Your task to perform on an android device: install app "Viber Messenger" Image 0: 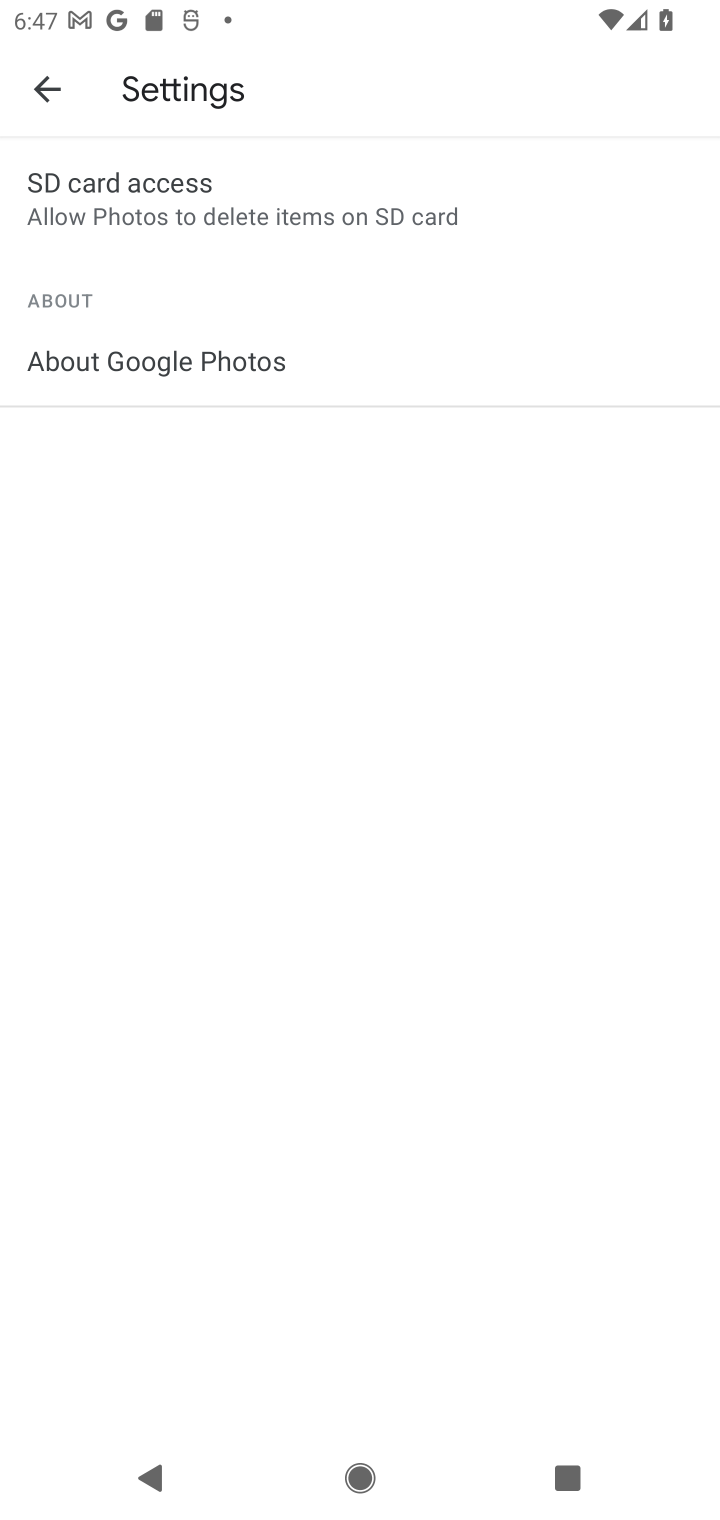
Step 0: press home button
Your task to perform on an android device: install app "Viber Messenger" Image 1: 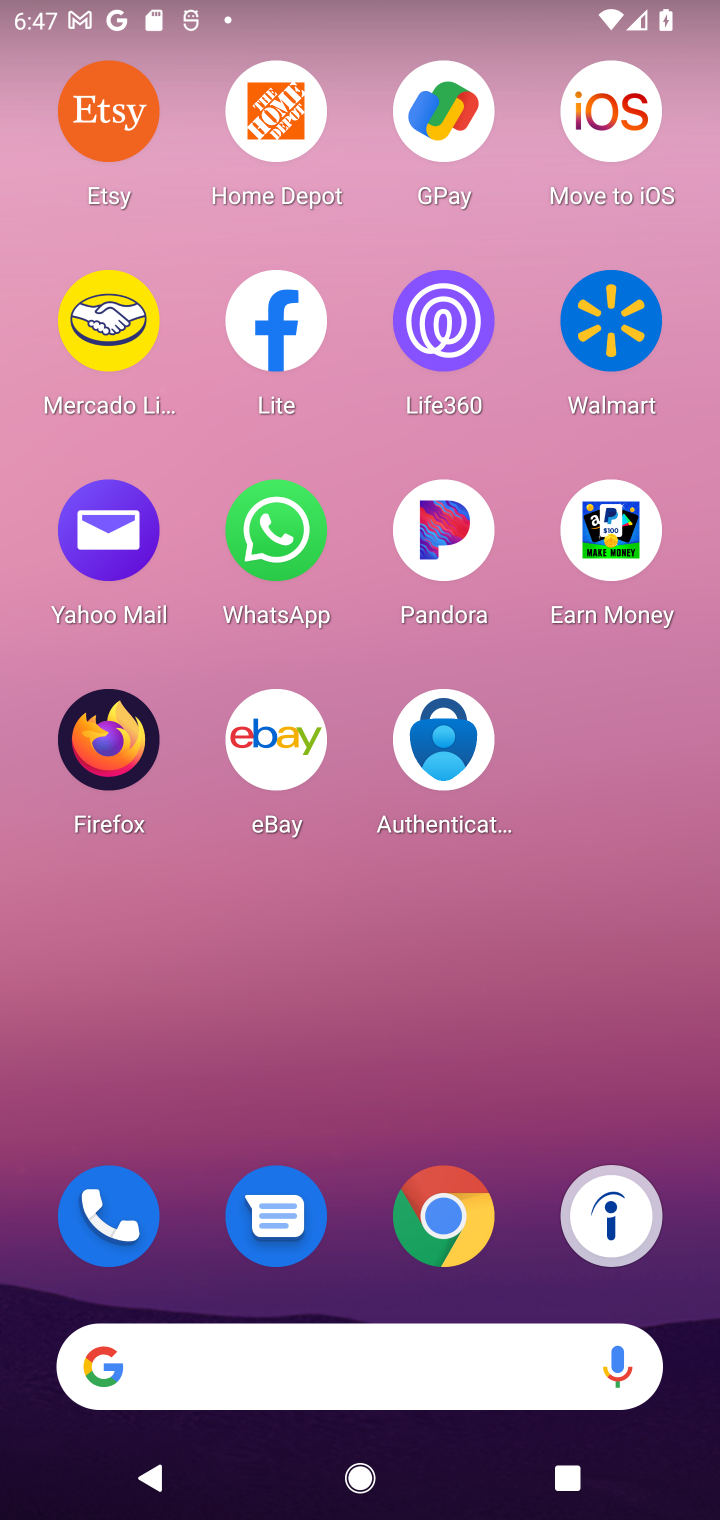
Step 1: drag from (530, 1282) to (518, 360)
Your task to perform on an android device: install app "Viber Messenger" Image 2: 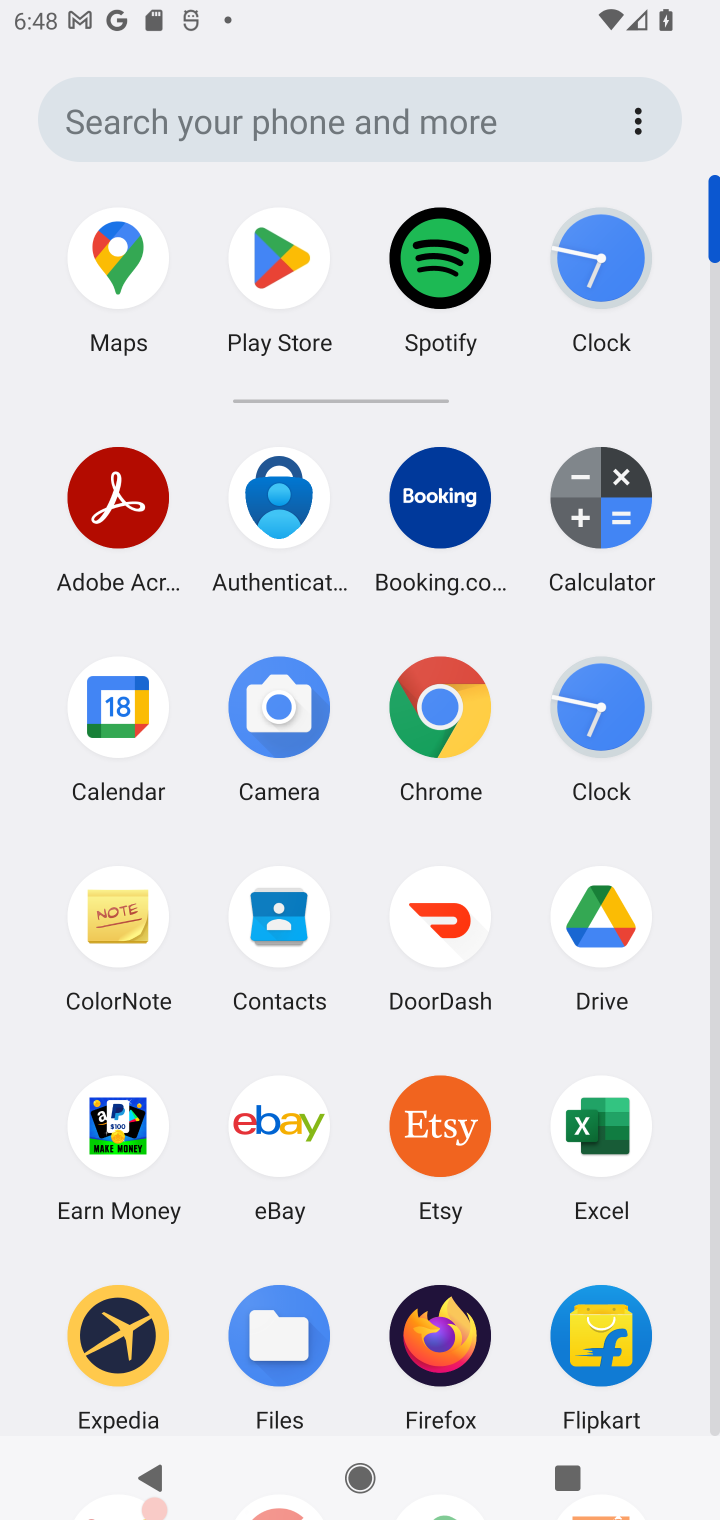
Step 2: drag from (529, 1235) to (525, 604)
Your task to perform on an android device: install app "Viber Messenger" Image 3: 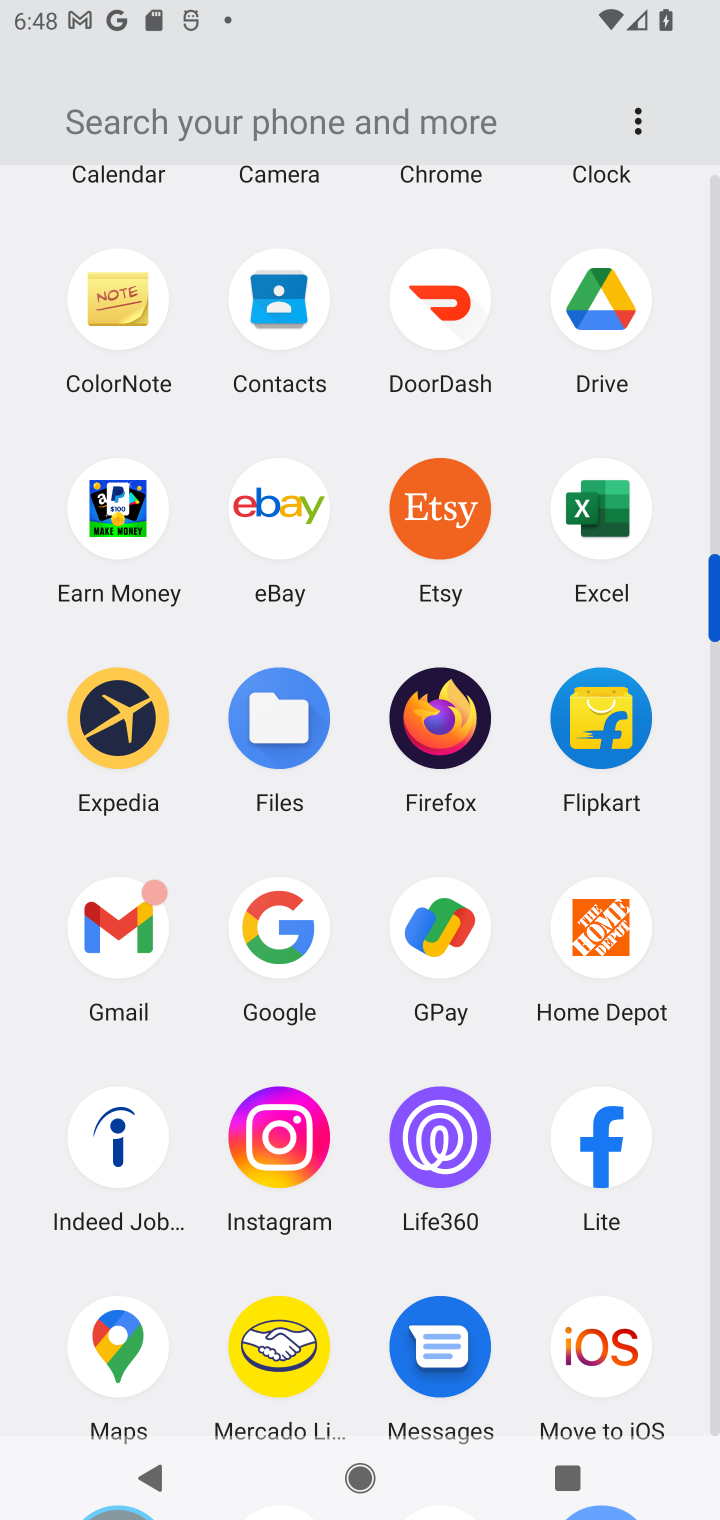
Step 3: drag from (517, 1281) to (507, 591)
Your task to perform on an android device: install app "Viber Messenger" Image 4: 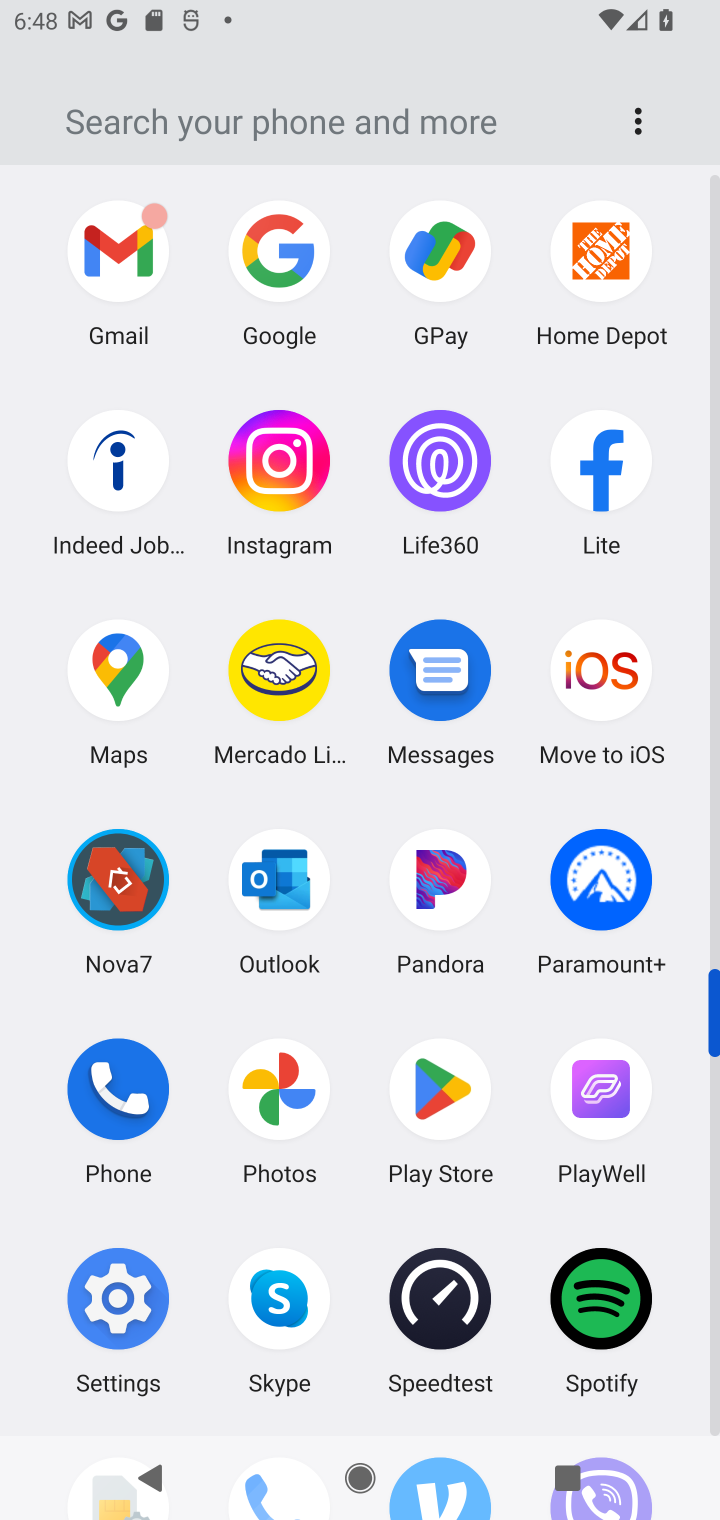
Step 4: click (442, 1098)
Your task to perform on an android device: install app "Viber Messenger" Image 5: 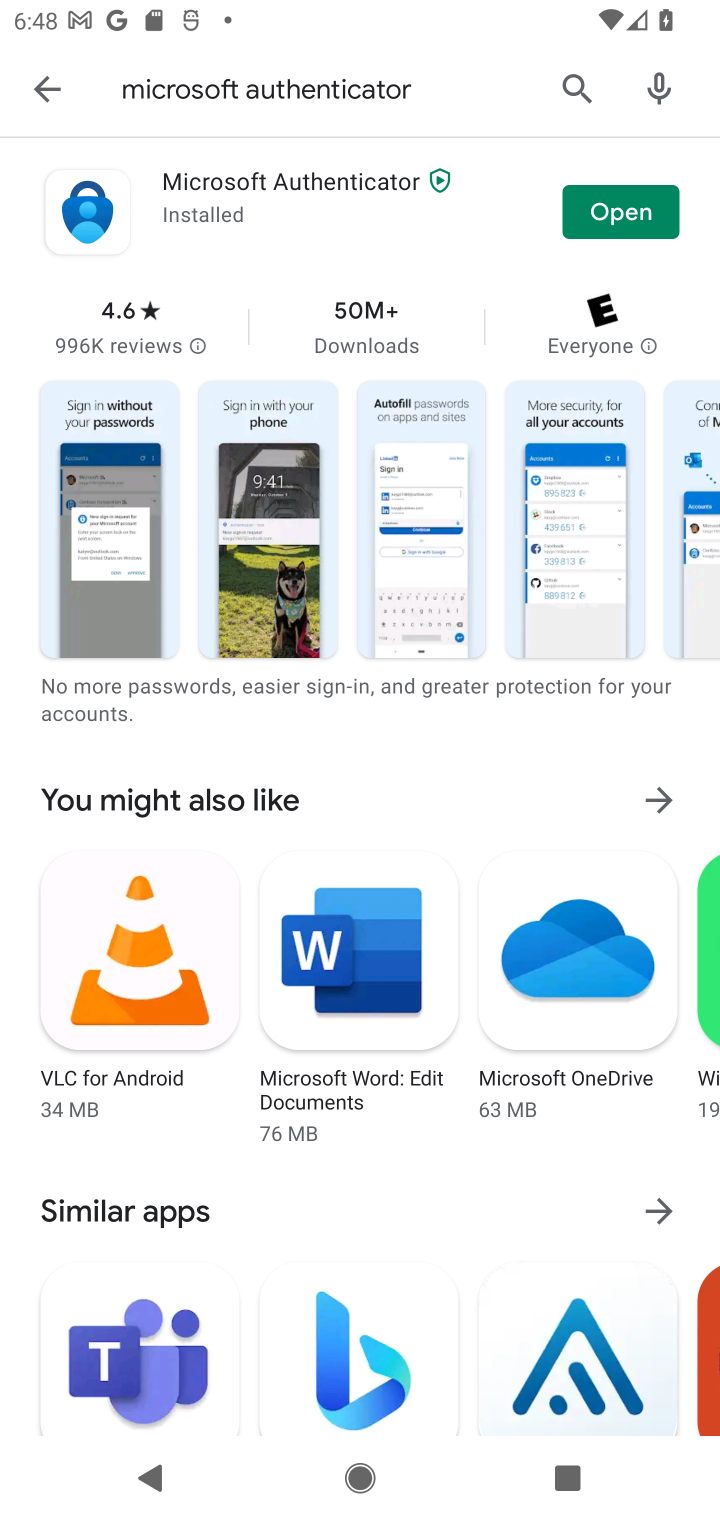
Step 5: click (561, 82)
Your task to perform on an android device: install app "Viber Messenger" Image 6: 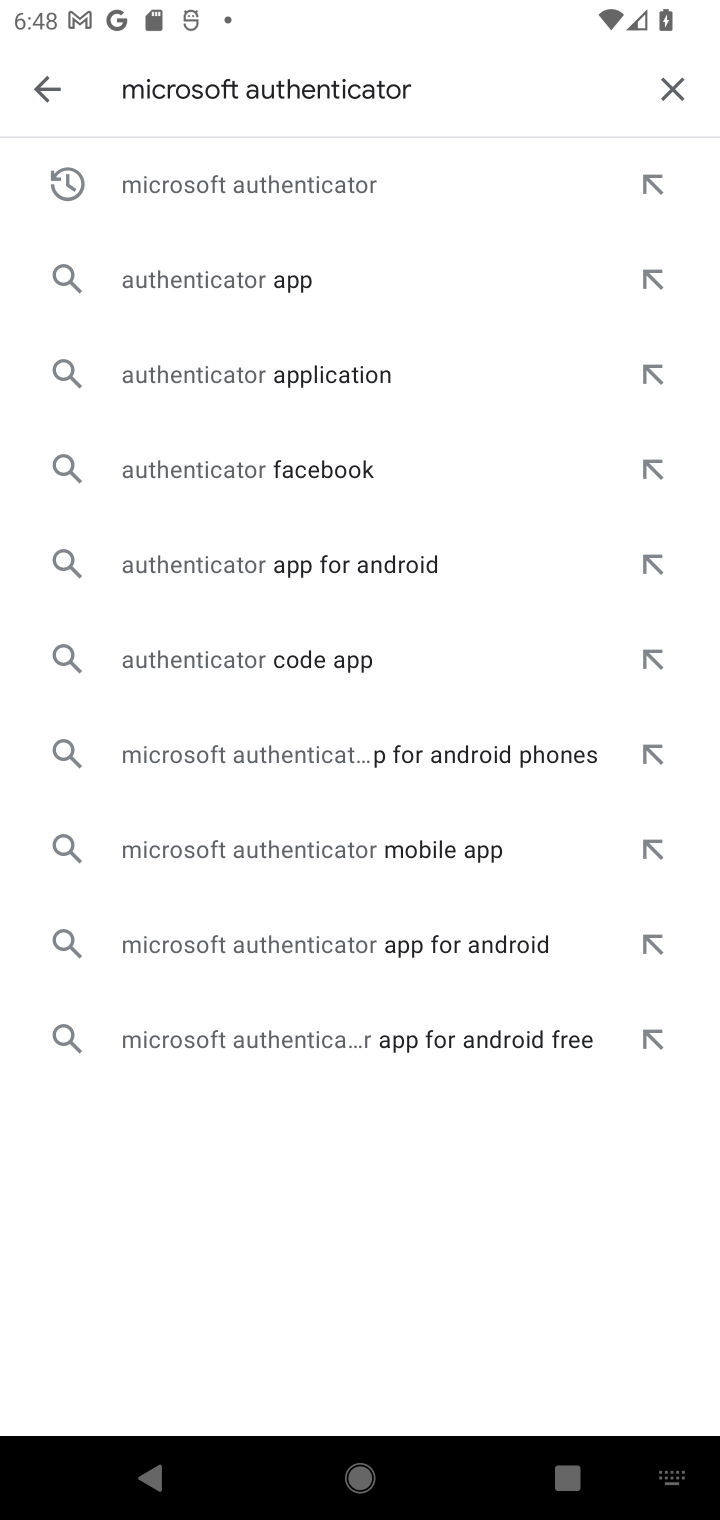
Step 6: click (675, 86)
Your task to perform on an android device: install app "Viber Messenger" Image 7: 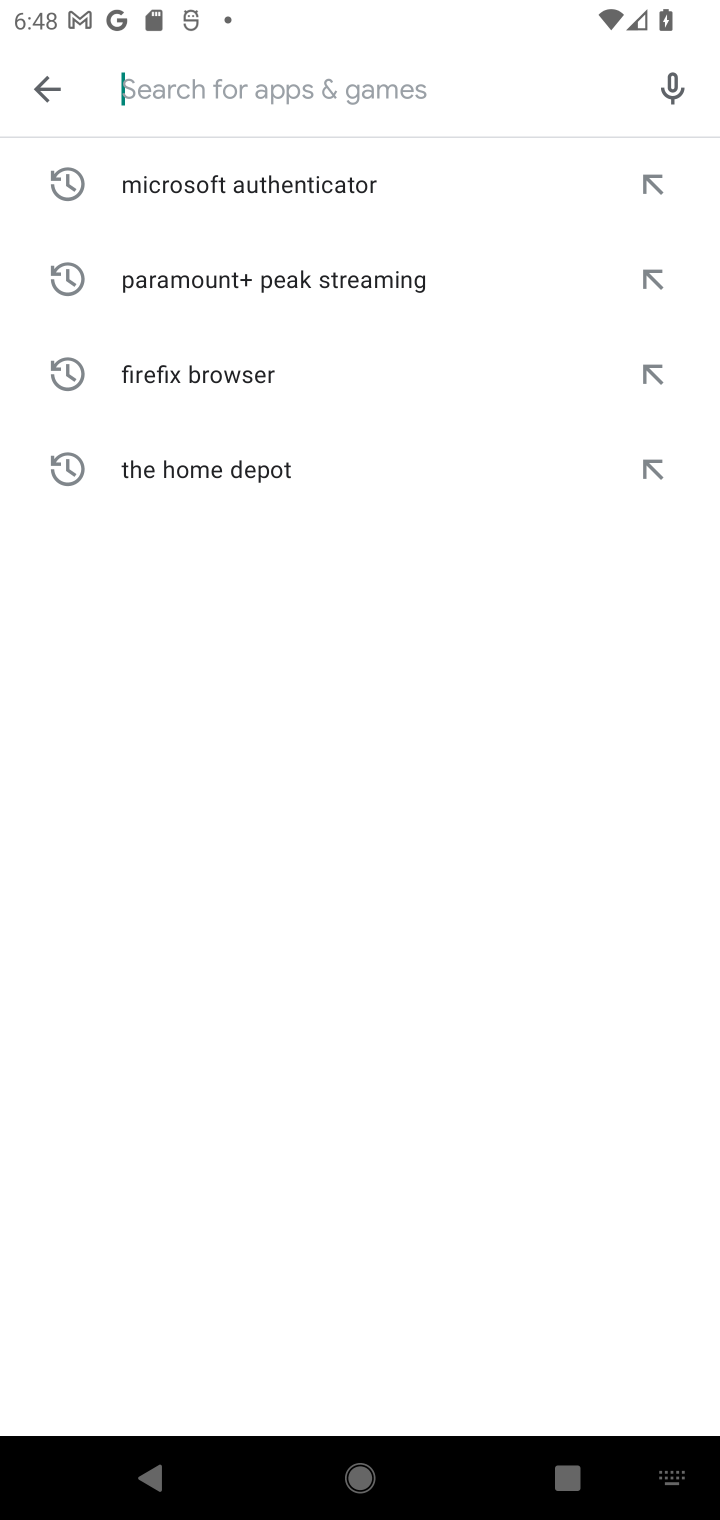
Step 7: type "Viber Massenger"
Your task to perform on an android device: install app "Viber Messenger" Image 8: 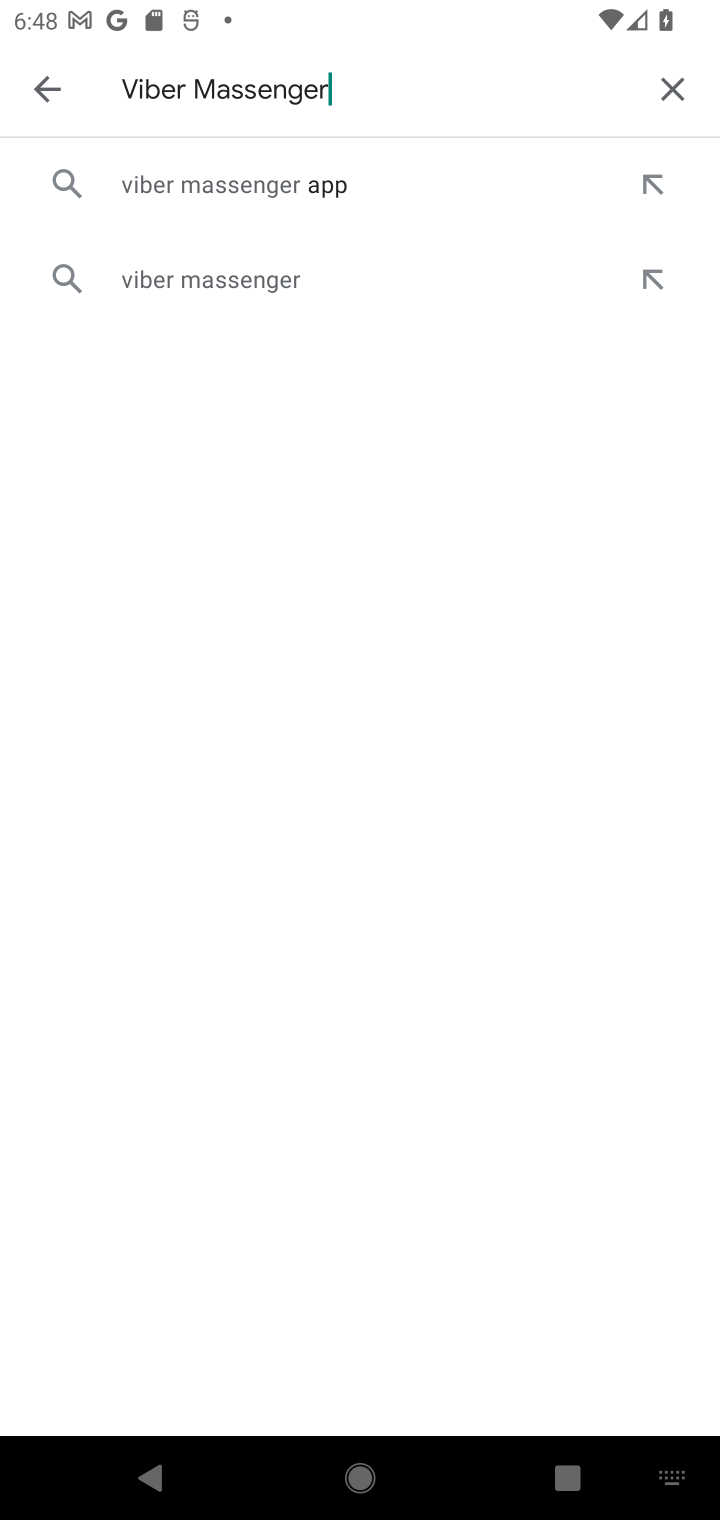
Step 8: click (207, 178)
Your task to perform on an android device: install app "Viber Messenger" Image 9: 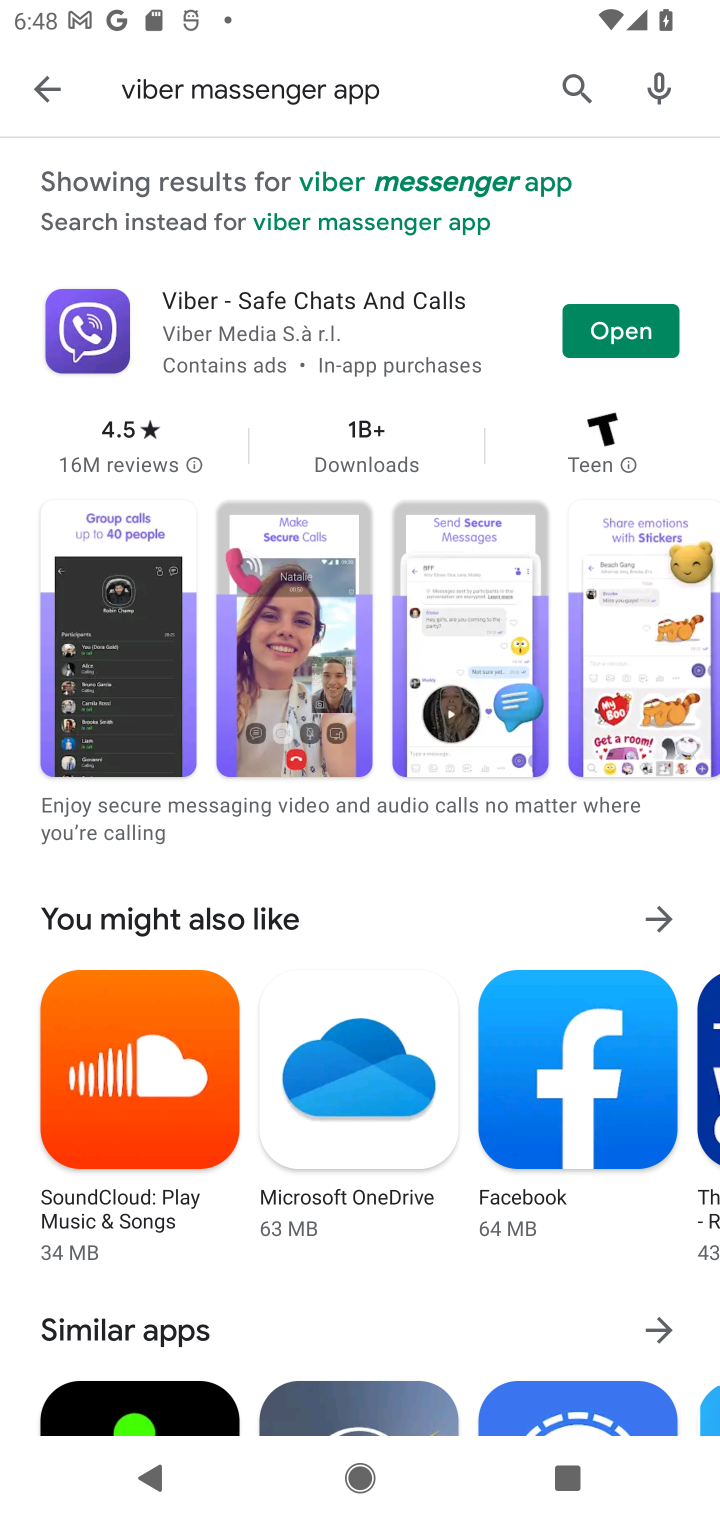
Step 9: click (402, 179)
Your task to perform on an android device: install app "Viber Messenger" Image 10: 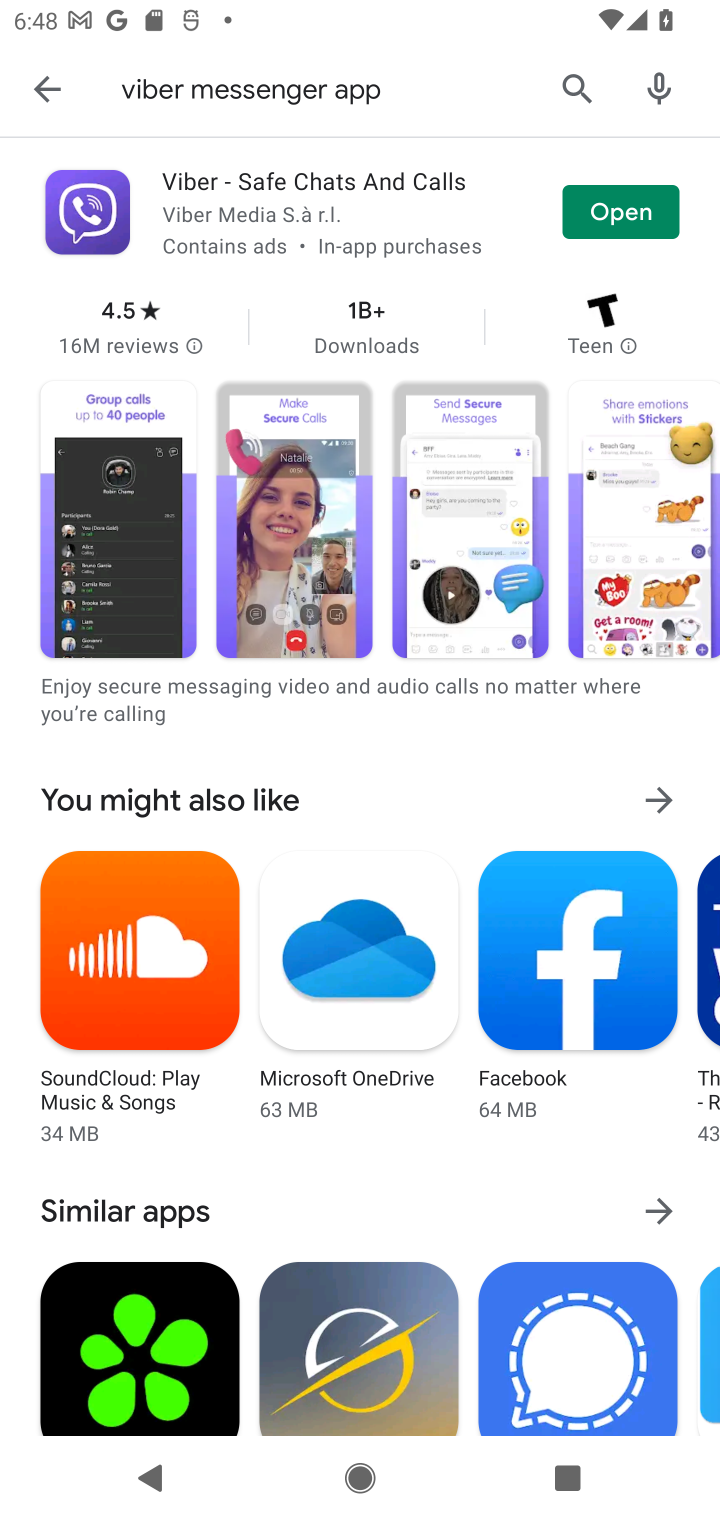
Step 10: task complete